Your task to perform on an android device: toggle translation in the chrome app Image 0: 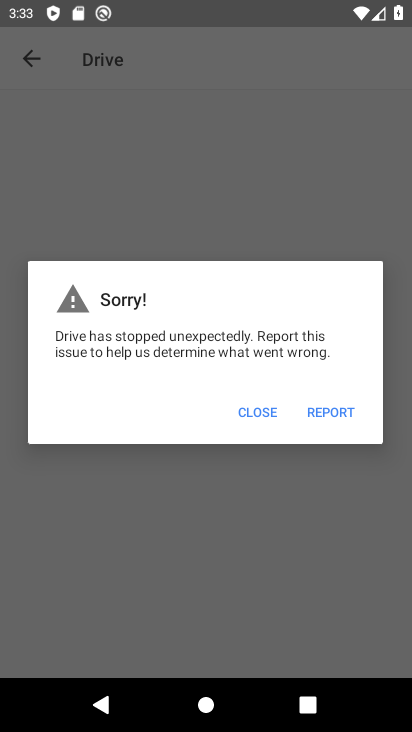
Step 0: press home button
Your task to perform on an android device: toggle translation in the chrome app Image 1: 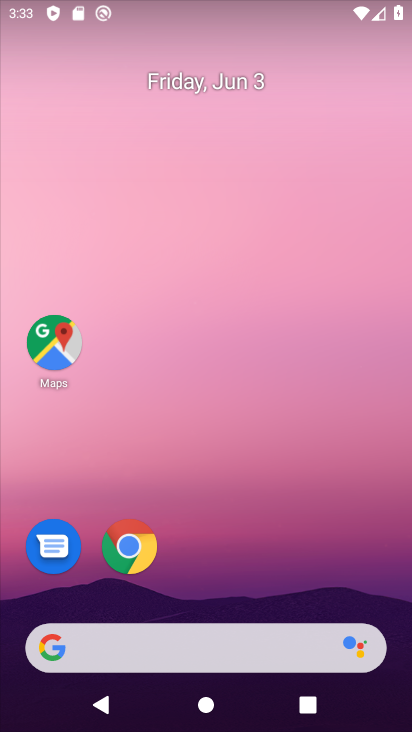
Step 1: click (134, 539)
Your task to perform on an android device: toggle translation in the chrome app Image 2: 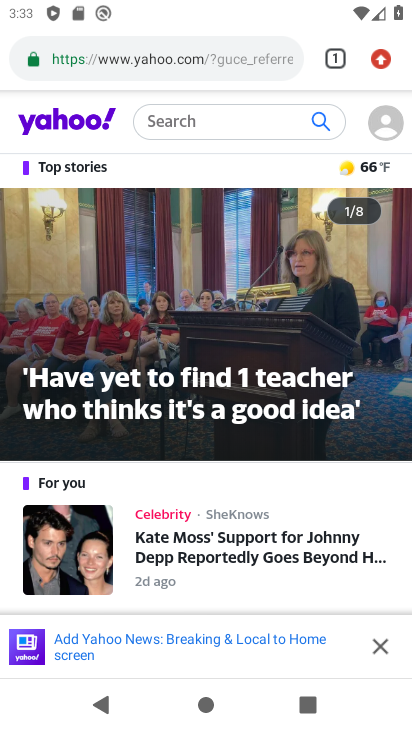
Step 2: click (386, 60)
Your task to perform on an android device: toggle translation in the chrome app Image 3: 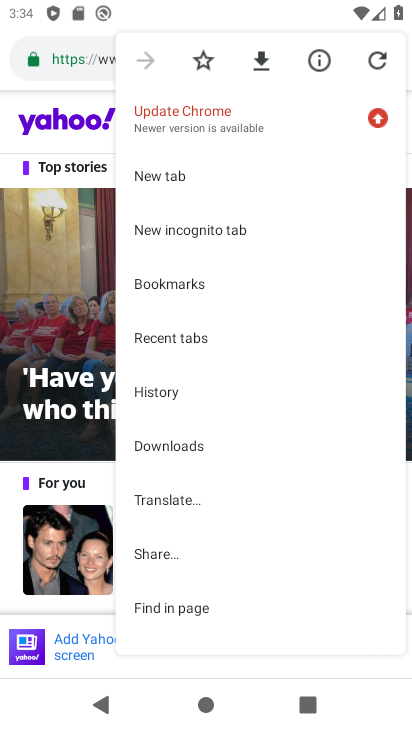
Step 3: drag from (234, 554) to (238, 302)
Your task to perform on an android device: toggle translation in the chrome app Image 4: 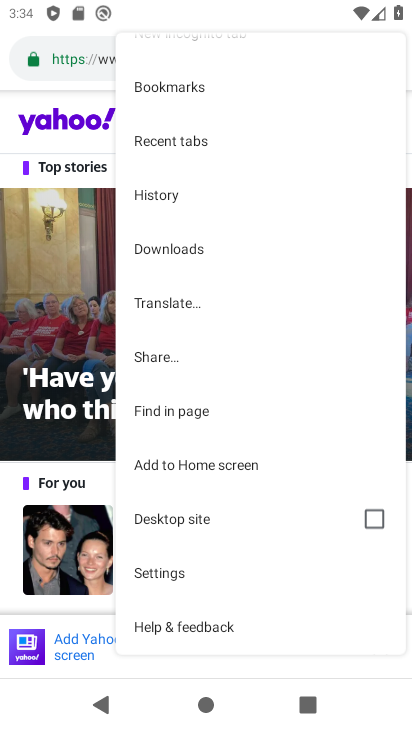
Step 4: click (199, 566)
Your task to perform on an android device: toggle translation in the chrome app Image 5: 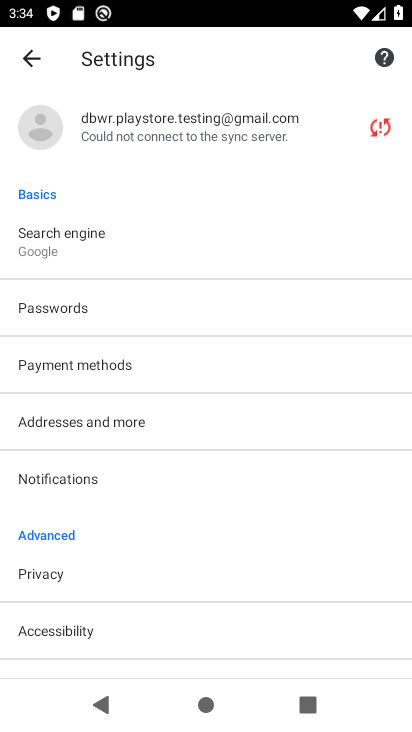
Step 5: drag from (200, 562) to (189, 407)
Your task to perform on an android device: toggle translation in the chrome app Image 6: 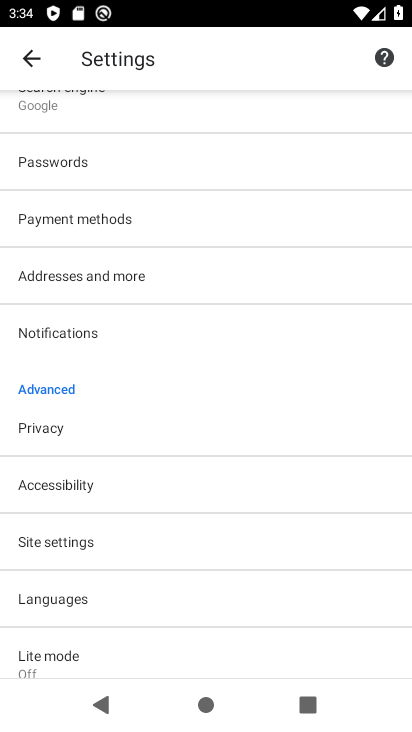
Step 6: click (182, 586)
Your task to perform on an android device: toggle translation in the chrome app Image 7: 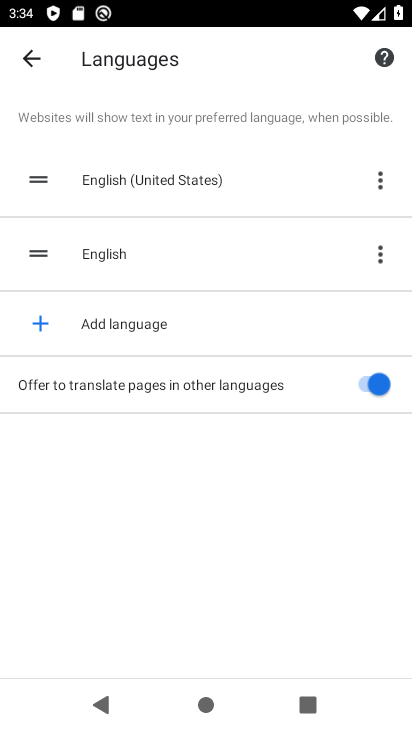
Step 7: click (370, 386)
Your task to perform on an android device: toggle translation in the chrome app Image 8: 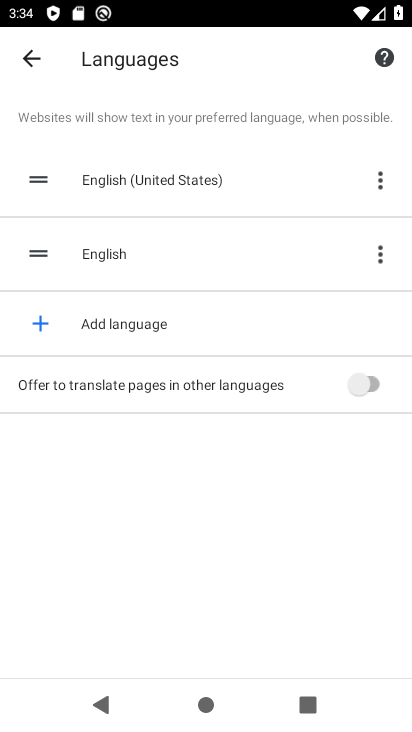
Step 8: task complete